Your task to perform on an android device: toggle translation in the chrome app Image 0: 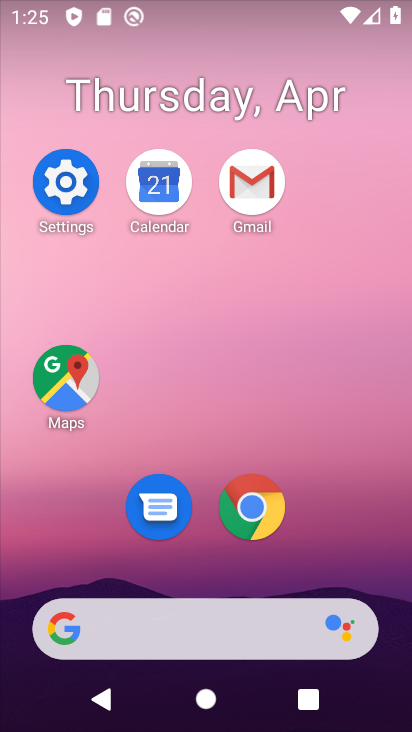
Step 0: click (256, 513)
Your task to perform on an android device: toggle translation in the chrome app Image 1: 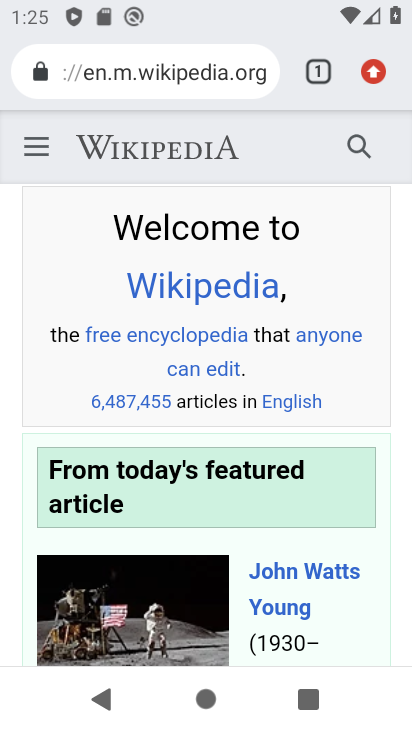
Step 1: click (372, 67)
Your task to perform on an android device: toggle translation in the chrome app Image 2: 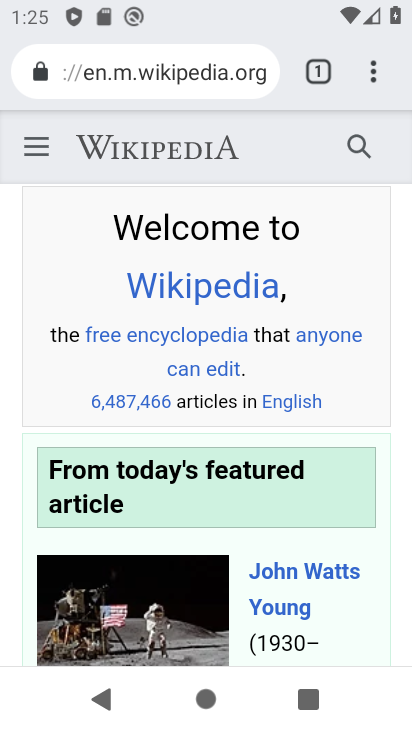
Step 2: click (372, 67)
Your task to perform on an android device: toggle translation in the chrome app Image 3: 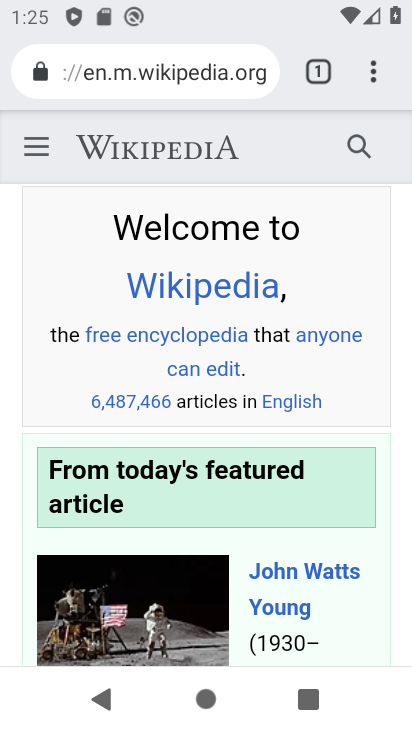
Step 3: click (373, 74)
Your task to perform on an android device: toggle translation in the chrome app Image 4: 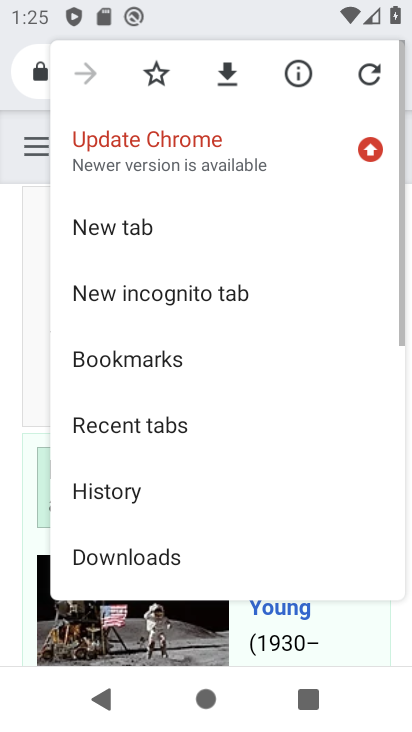
Step 4: drag from (255, 496) to (230, 92)
Your task to perform on an android device: toggle translation in the chrome app Image 5: 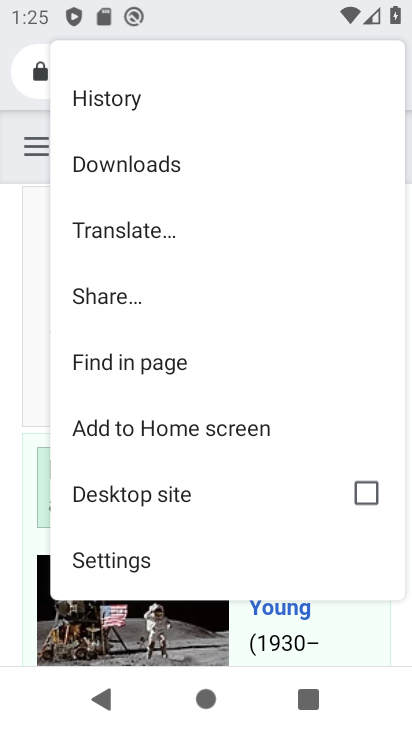
Step 5: click (193, 548)
Your task to perform on an android device: toggle translation in the chrome app Image 6: 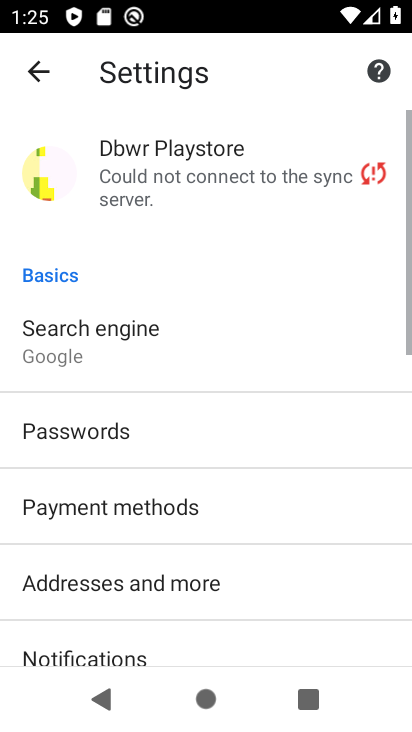
Step 6: drag from (193, 548) to (220, 102)
Your task to perform on an android device: toggle translation in the chrome app Image 7: 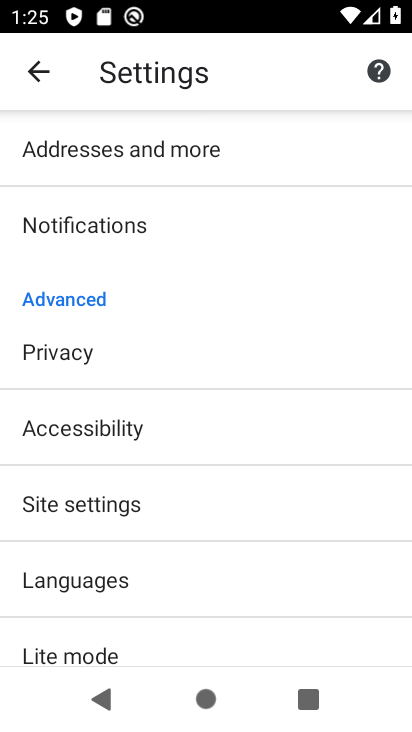
Step 7: click (126, 573)
Your task to perform on an android device: toggle translation in the chrome app Image 8: 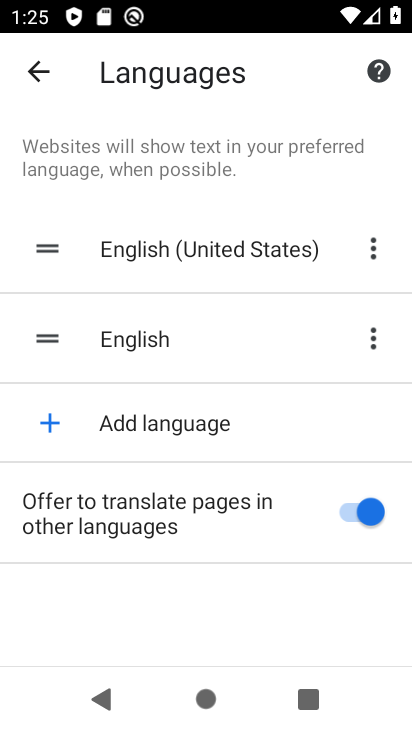
Step 8: click (354, 504)
Your task to perform on an android device: toggle translation in the chrome app Image 9: 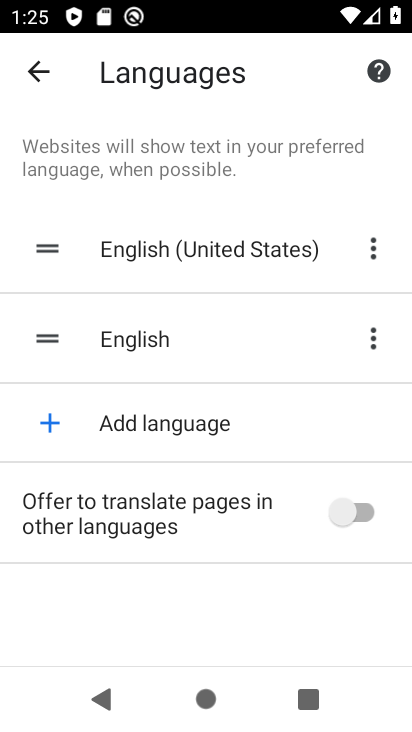
Step 9: task complete